Your task to perform on an android device: toggle show notifications on the lock screen Image 0: 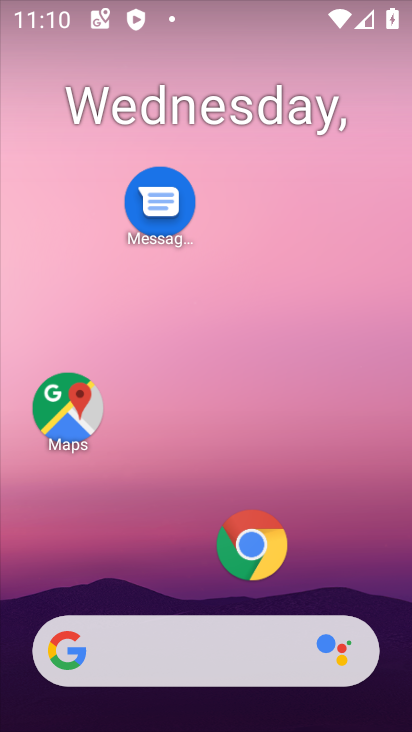
Step 0: drag from (189, 584) to (209, 230)
Your task to perform on an android device: toggle show notifications on the lock screen Image 1: 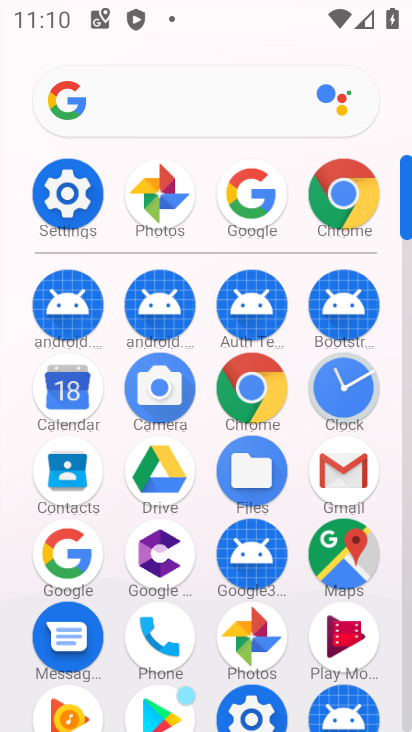
Step 1: click (53, 185)
Your task to perform on an android device: toggle show notifications on the lock screen Image 2: 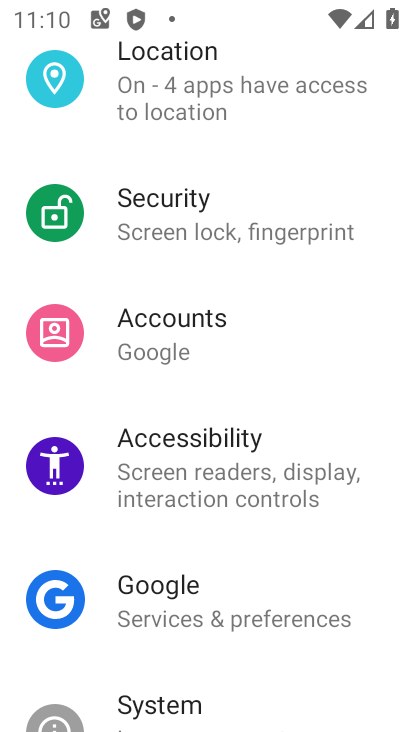
Step 2: drag from (214, 295) to (217, 543)
Your task to perform on an android device: toggle show notifications on the lock screen Image 3: 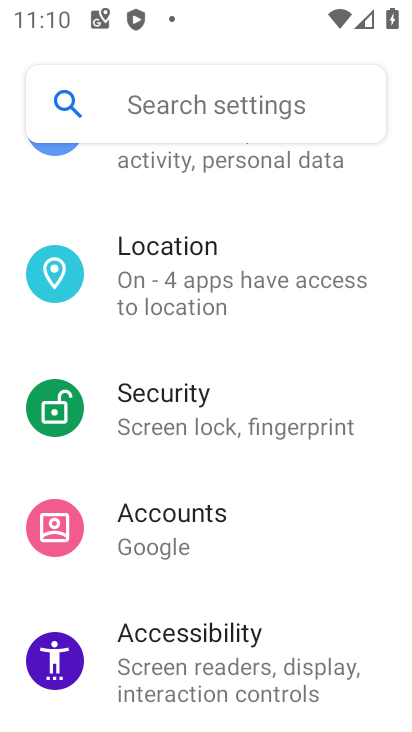
Step 3: drag from (218, 270) to (231, 442)
Your task to perform on an android device: toggle show notifications on the lock screen Image 4: 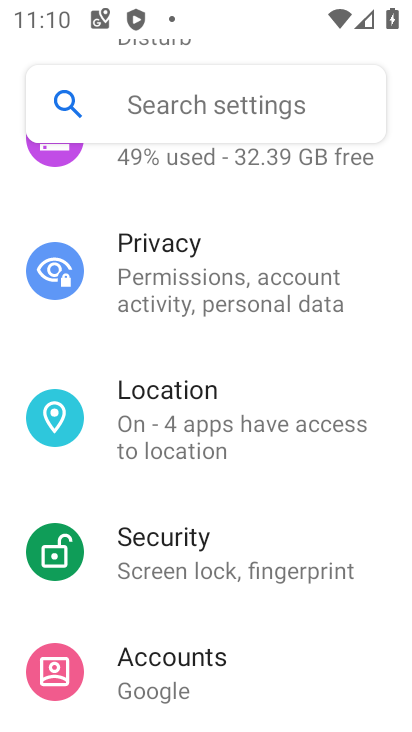
Step 4: drag from (235, 228) to (256, 452)
Your task to perform on an android device: toggle show notifications on the lock screen Image 5: 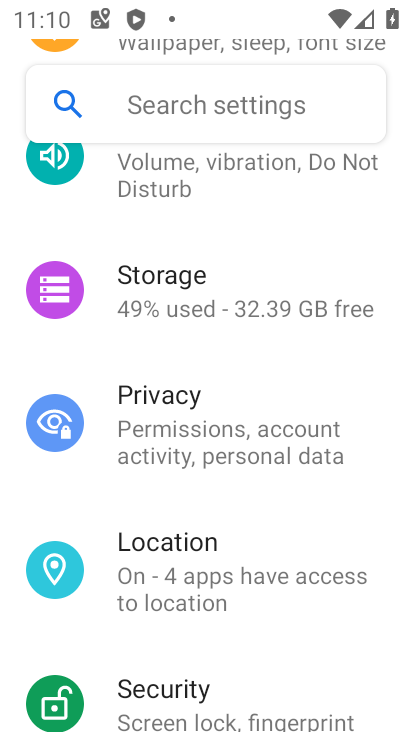
Step 5: drag from (220, 218) to (253, 422)
Your task to perform on an android device: toggle show notifications on the lock screen Image 6: 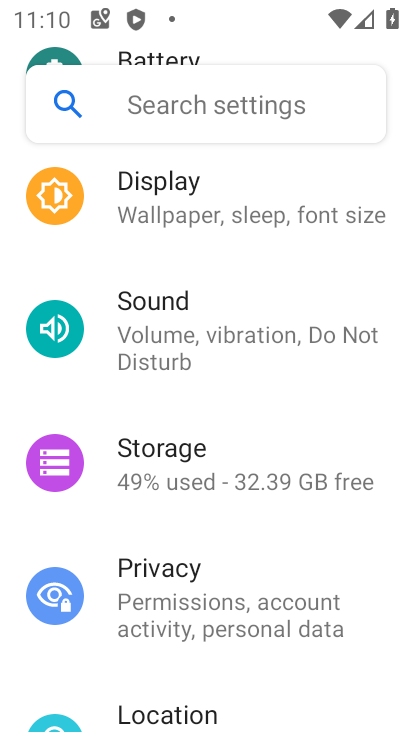
Step 6: drag from (228, 263) to (267, 478)
Your task to perform on an android device: toggle show notifications on the lock screen Image 7: 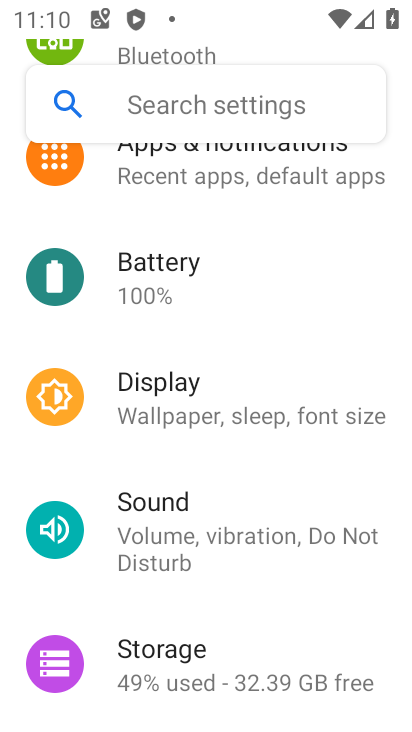
Step 7: drag from (240, 284) to (255, 403)
Your task to perform on an android device: toggle show notifications on the lock screen Image 8: 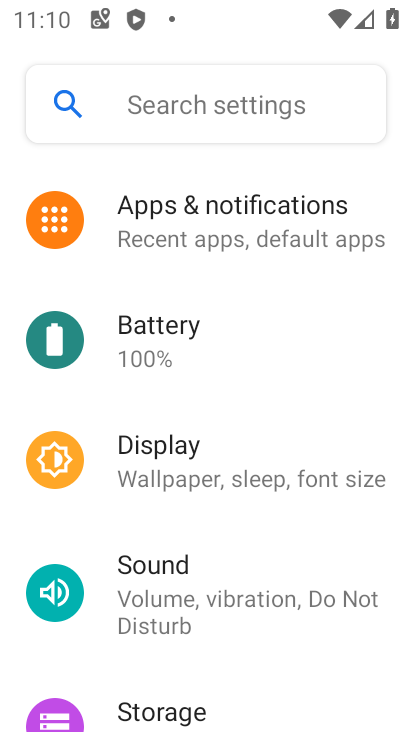
Step 8: click (193, 220)
Your task to perform on an android device: toggle show notifications on the lock screen Image 9: 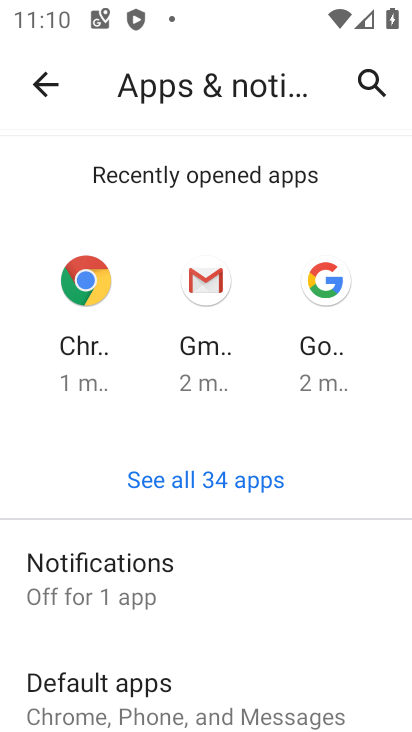
Step 9: click (115, 589)
Your task to perform on an android device: toggle show notifications on the lock screen Image 10: 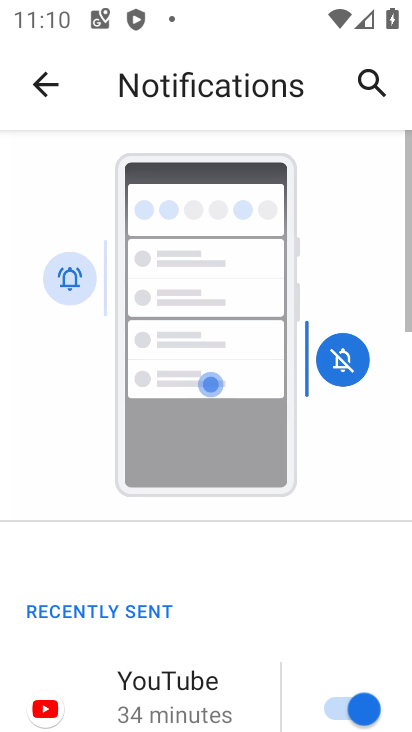
Step 10: drag from (214, 589) to (268, 259)
Your task to perform on an android device: toggle show notifications on the lock screen Image 11: 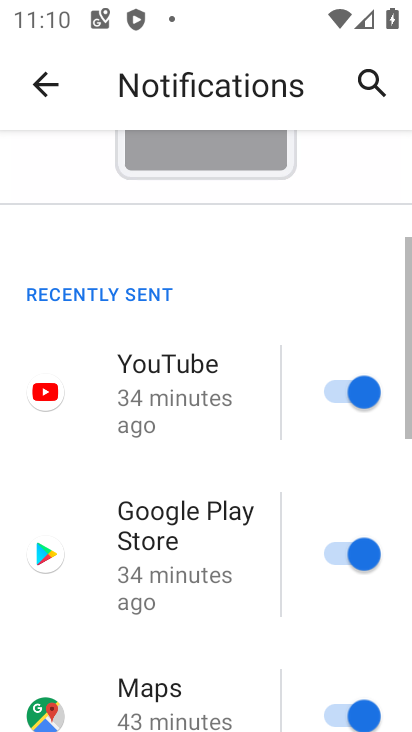
Step 11: drag from (240, 590) to (240, 280)
Your task to perform on an android device: toggle show notifications on the lock screen Image 12: 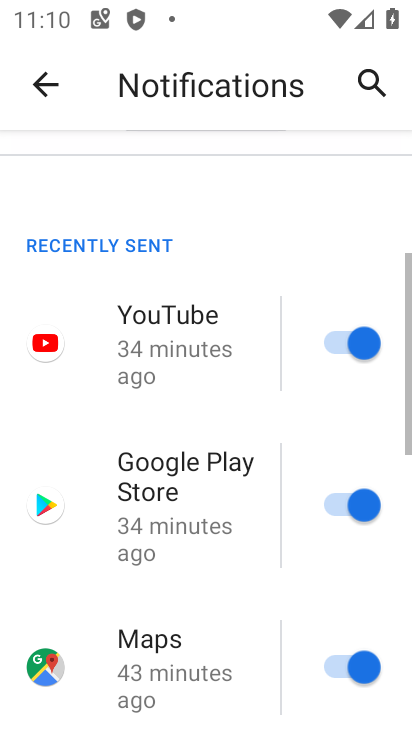
Step 12: drag from (244, 578) to (244, 316)
Your task to perform on an android device: toggle show notifications on the lock screen Image 13: 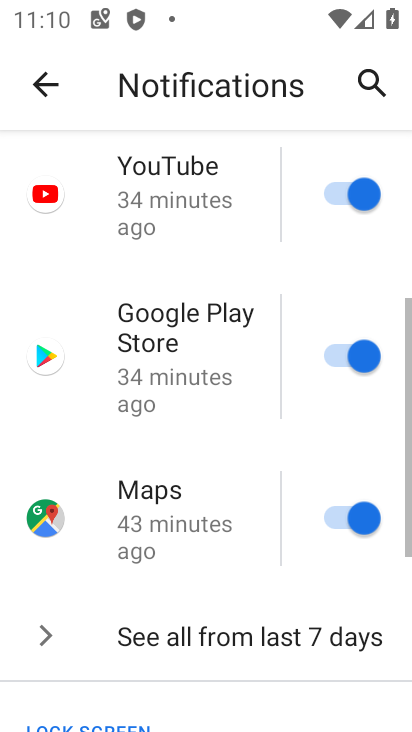
Step 13: drag from (254, 590) to (254, 365)
Your task to perform on an android device: toggle show notifications on the lock screen Image 14: 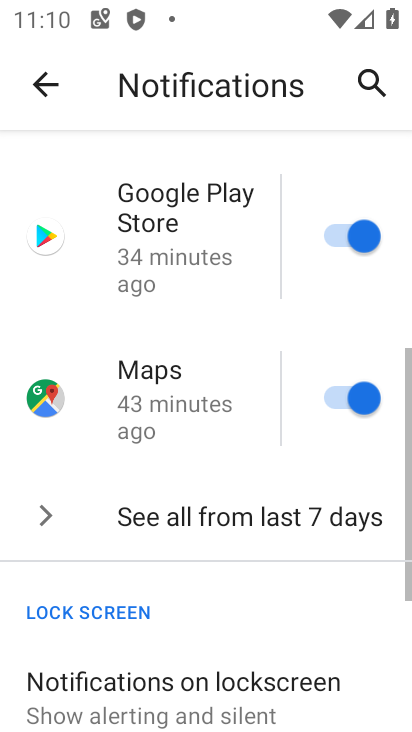
Step 14: drag from (241, 525) to (226, 292)
Your task to perform on an android device: toggle show notifications on the lock screen Image 15: 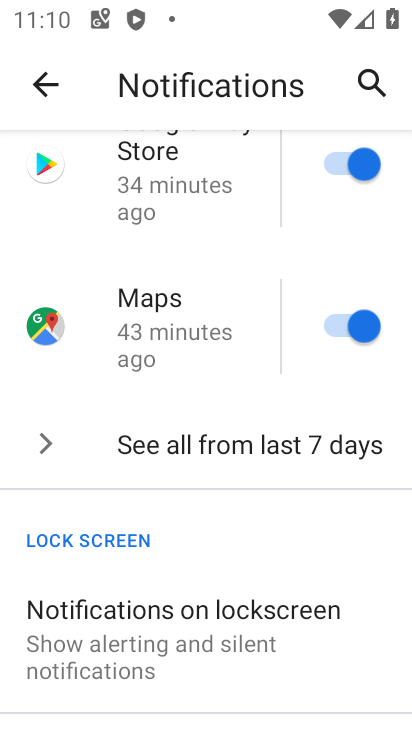
Step 15: click (226, 614)
Your task to perform on an android device: toggle show notifications on the lock screen Image 16: 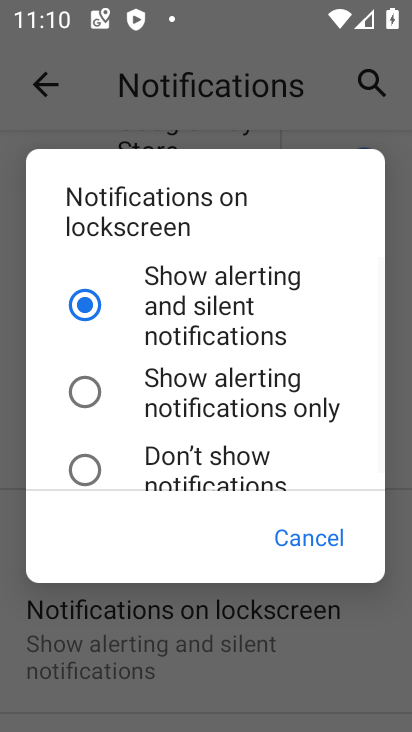
Step 16: click (150, 459)
Your task to perform on an android device: toggle show notifications on the lock screen Image 17: 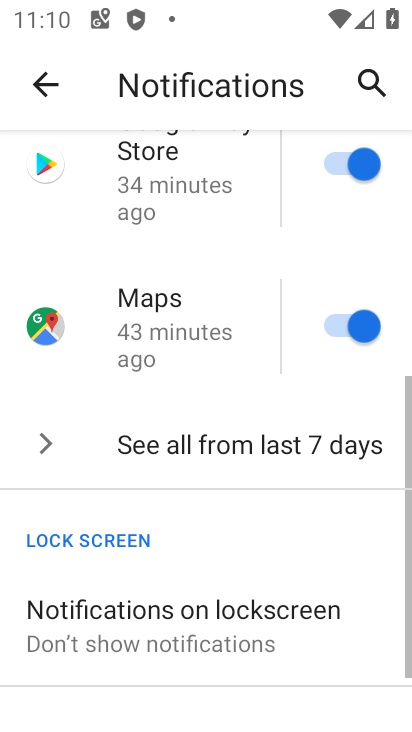
Step 17: task complete